Your task to perform on an android device: turn off notifications settings in the gmail app Image 0: 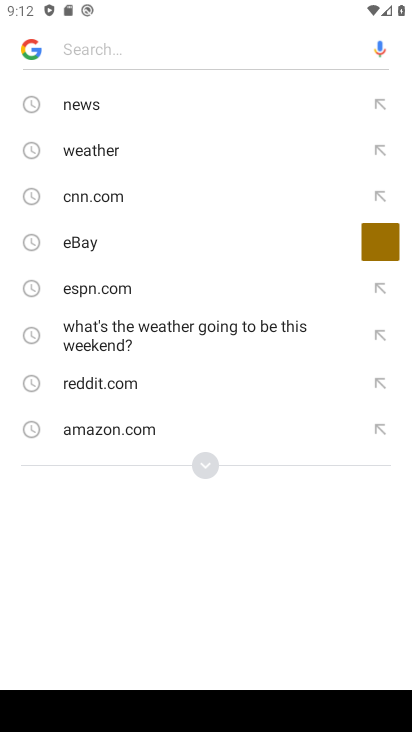
Step 0: press home button
Your task to perform on an android device: turn off notifications settings in the gmail app Image 1: 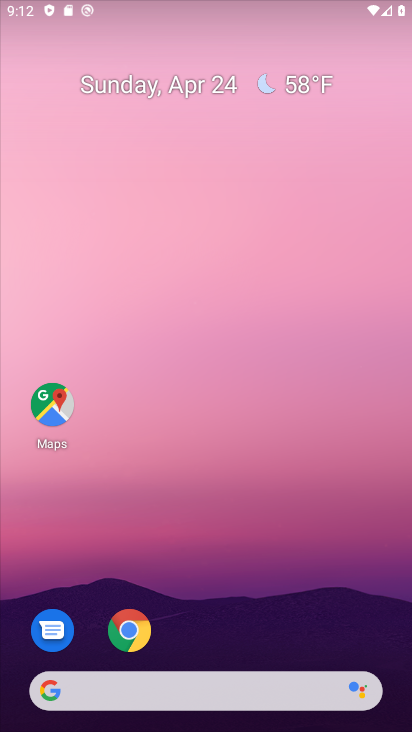
Step 1: drag from (169, 610) to (219, 315)
Your task to perform on an android device: turn off notifications settings in the gmail app Image 2: 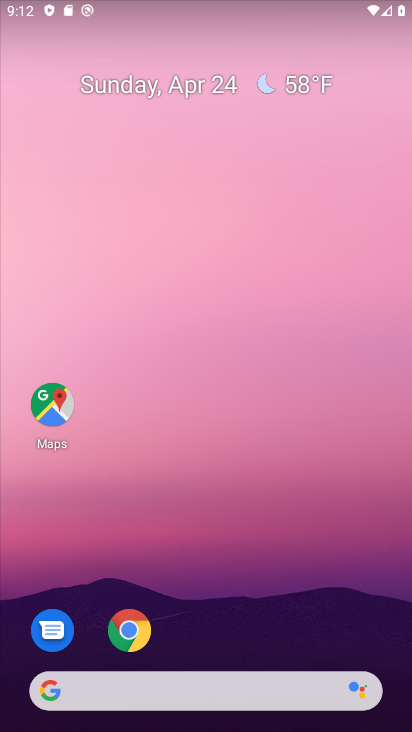
Step 2: drag from (164, 653) to (230, 82)
Your task to perform on an android device: turn off notifications settings in the gmail app Image 3: 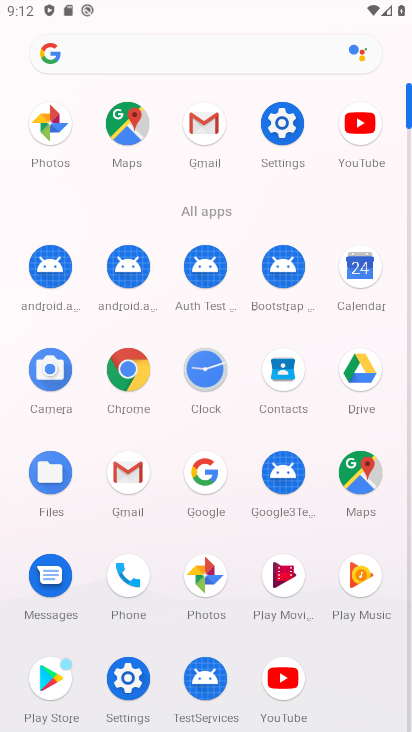
Step 3: click (147, 490)
Your task to perform on an android device: turn off notifications settings in the gmail app Image 4: 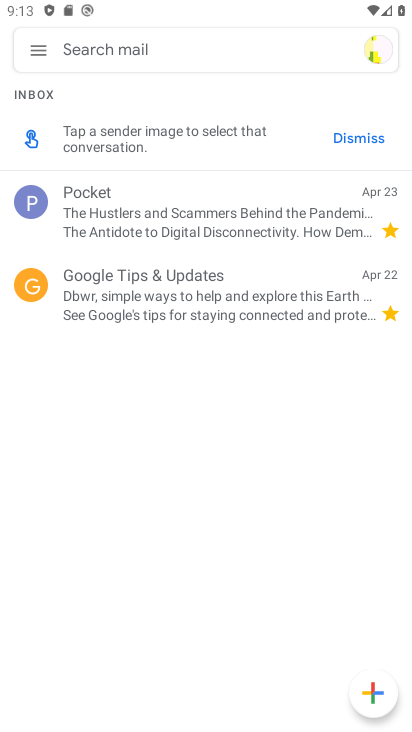
Step 4: click (38, 60)
Your task to perform on an android device: turn off notifications settings in the gmail app Image 5: 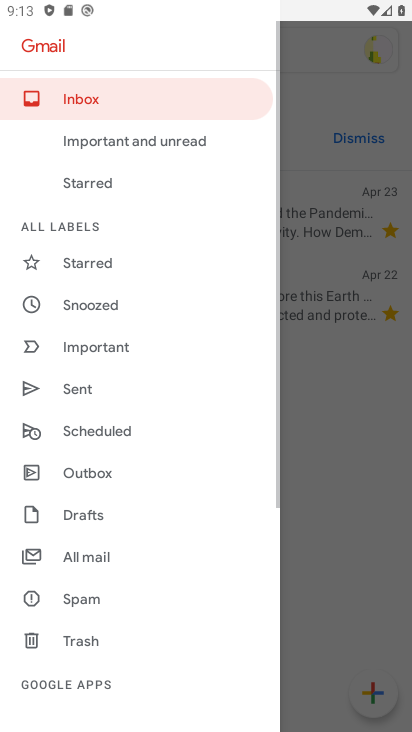
Step 5: drag from (128, 518) to (186, 166)
Your task to perform on an android device: turn off notifications settings in the gmail app Image 6: 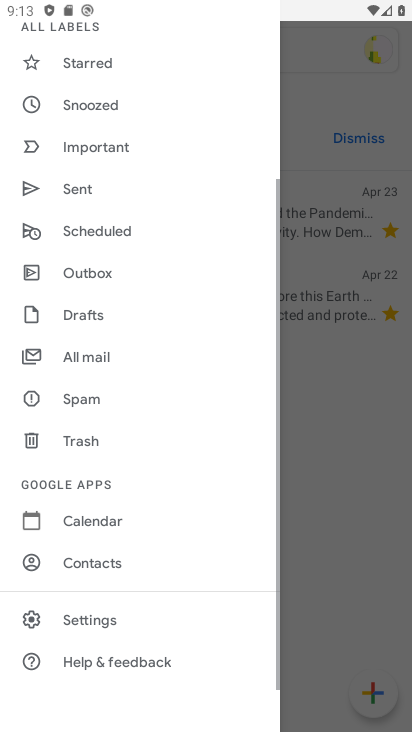
Step 6: click (99, 629)
Your task to perform on an android device: turn off notifications settings in the gmail app Image 7: 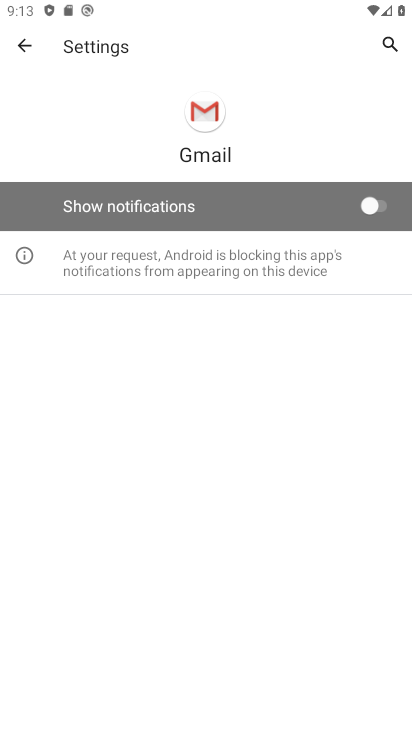
Step 7: task complete